Your task to perform on an android device: Go to Android settings Image 0: 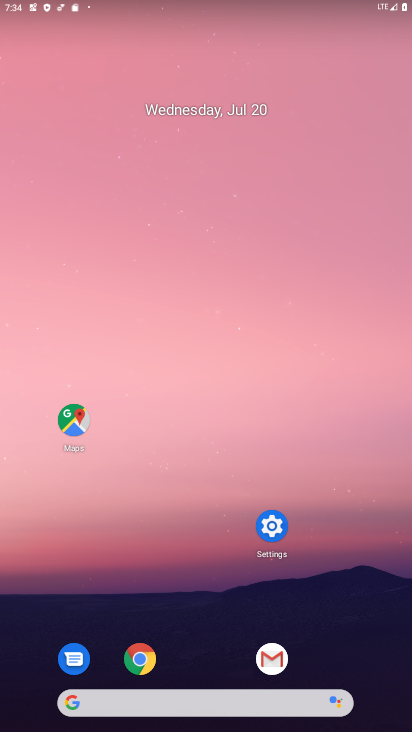
Step 0: click (273, 541)
Your task to perform on an android device: Go to Android settings Image 1: 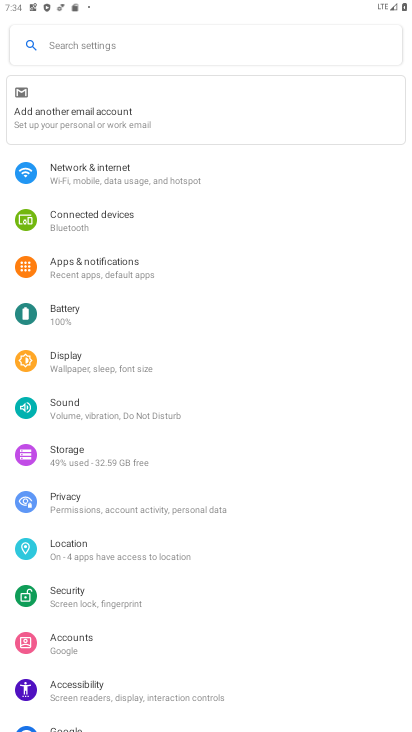
Step 1: click (117, 46)
Your task to perform on an android device: Go to Android settings Image 2: 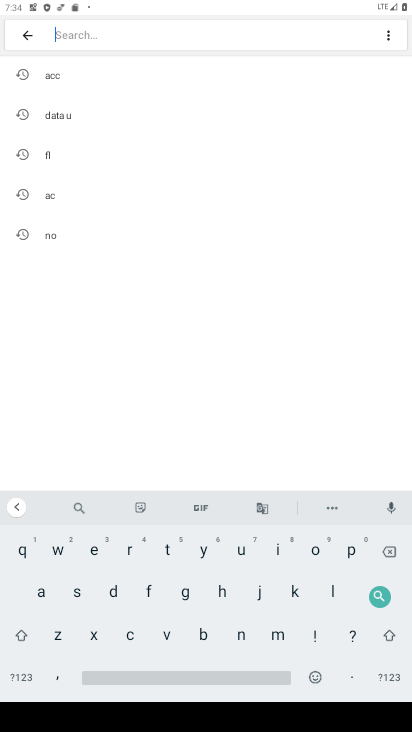
Step 2: click (39, 588)
Your task to perform on an android device: Go to Android settings Image 3: 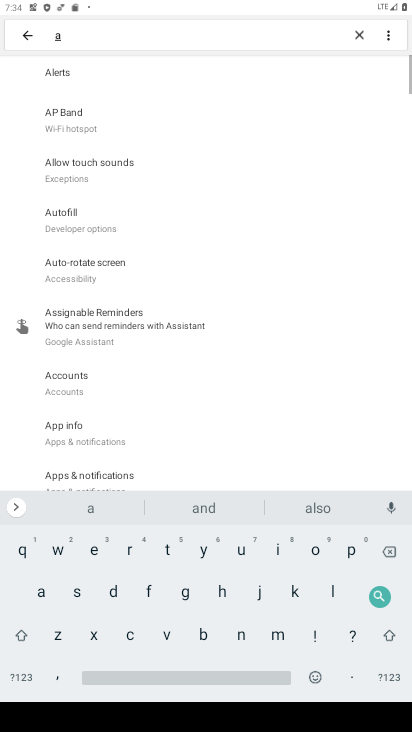
Step 3: click (247, 631)
Your task to perform on an android device: Go to Android settings Image 4: 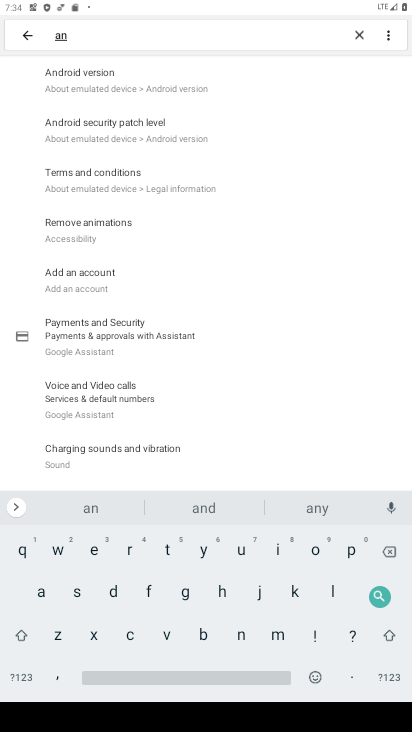
Step 4: click (93, 73)
Your task to perform on an android device: Go to Android settings Image 5: 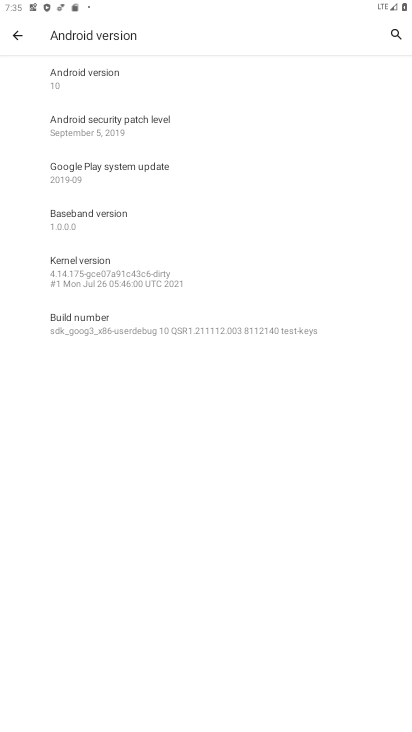
Step 5: click (110, 84)
Your task to perform on an android device: Go to Android settings Image 6: 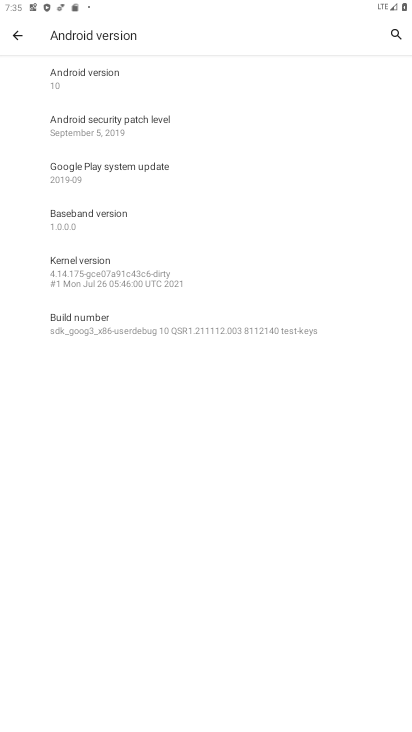
Step 6: task complete